Your task to perform on an android device: turn off wifi Image 0: 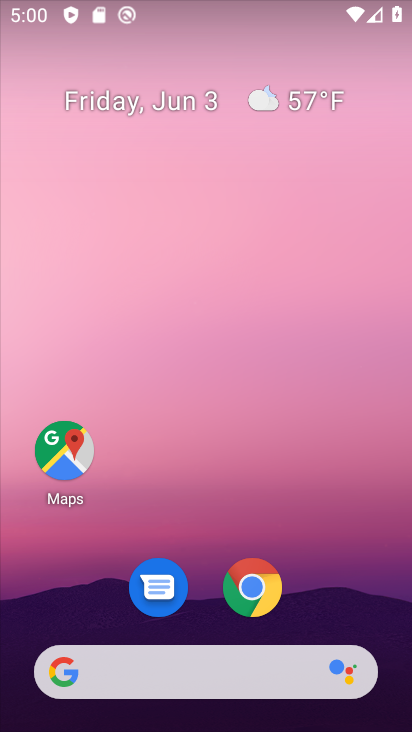
Step 0: click (265, 567)
Your task to perform on an android device: turn off wifi Image 1: 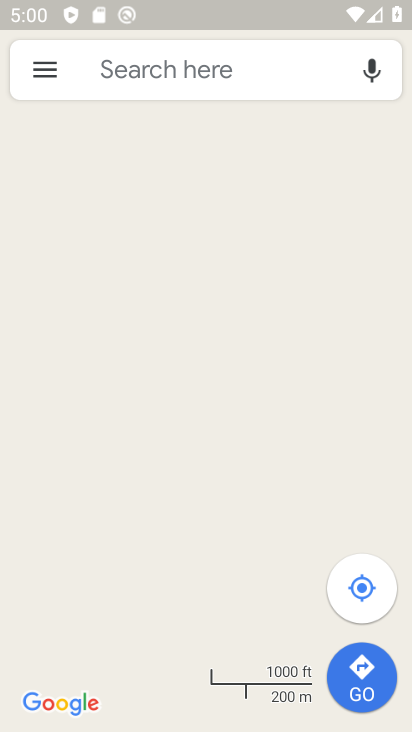
Step 1: drag from (273, 10) to (296, 462)
Your task to perform on an android device: turn off wifi Image 2: 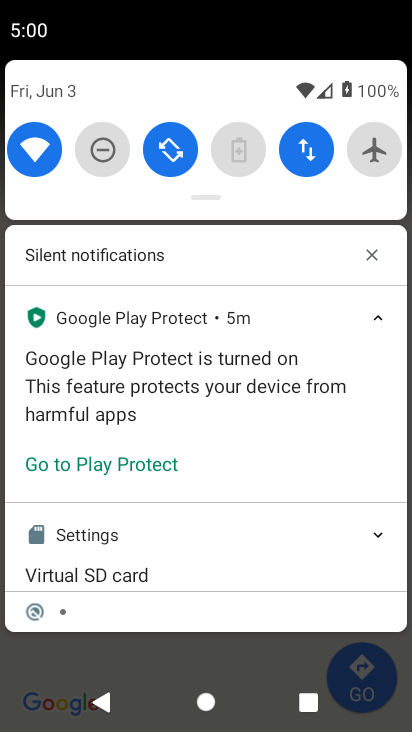
Step 2: click (46, 169)
Your task to perform on an android device: turn off wifi Image 3: 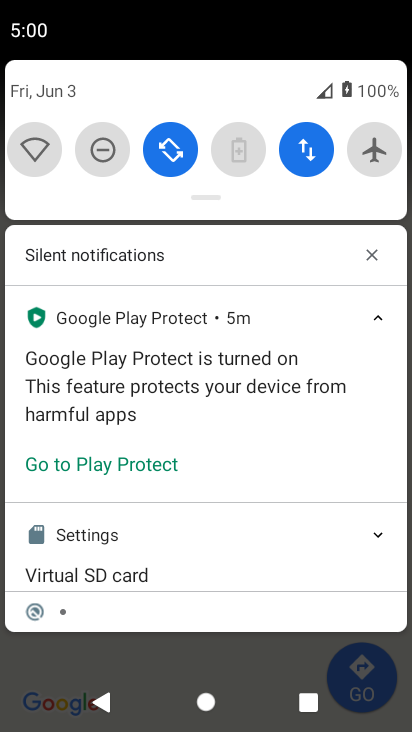
Step 3: task complete